Your task to perform on an android device: open a bookmark in the chrome app Image 0: 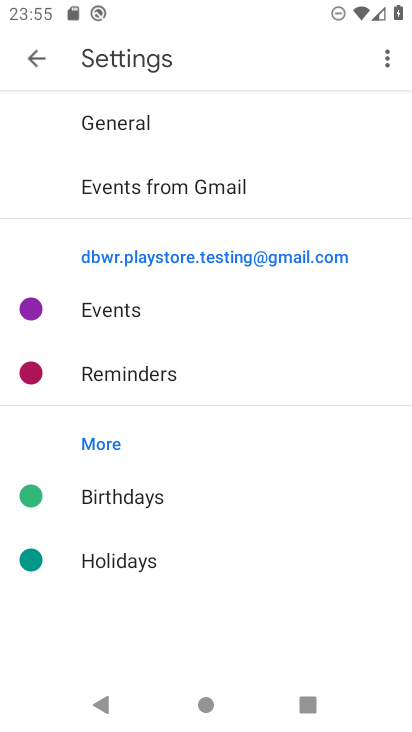
Step 0: press home button
Your task to perform on an android device: open a bookmark in the chrome app Image 1: 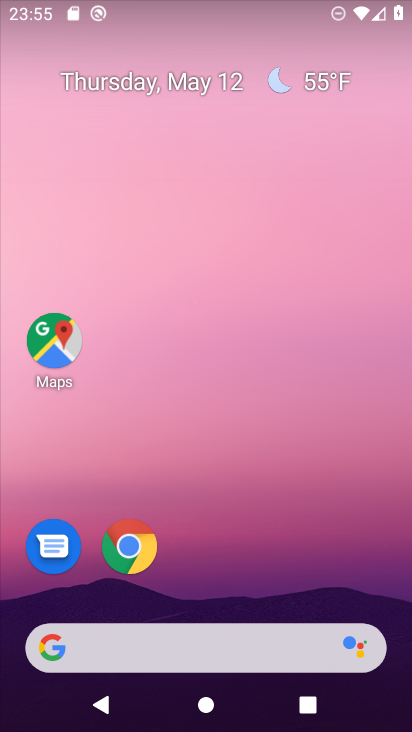
Step 1: click (128, 548)
Your task to perform on an android device: open a bookmark in the chrome app Image 2: 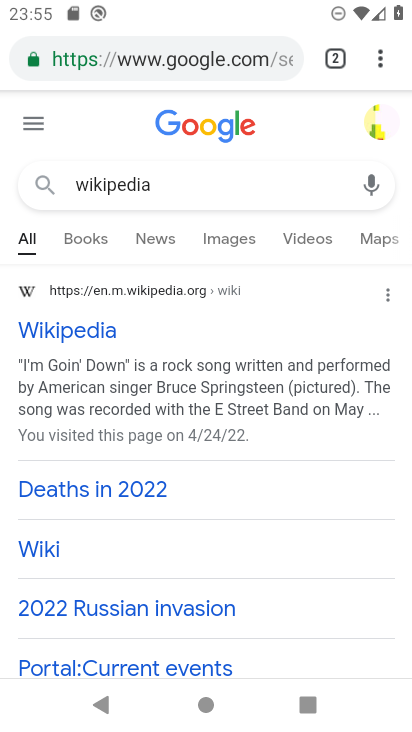
Step 2: click (118, 64)
Your task to perform on an android device: open a bookmark in the chrome app Image 3: 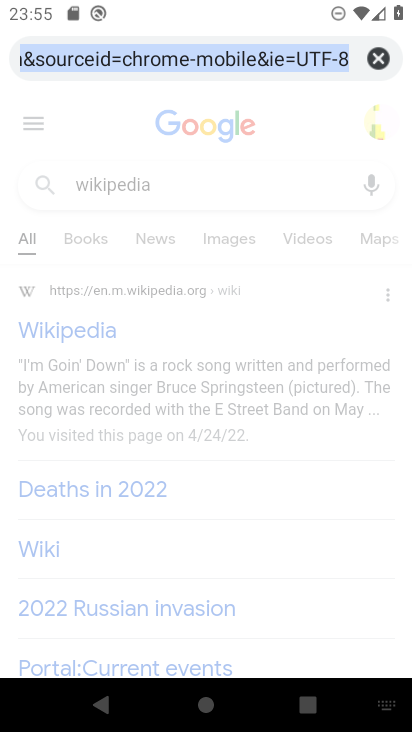
Step 3: click (378, 58)
Your task to perform on an android device: open a bookmark in the chrome app Image 4: 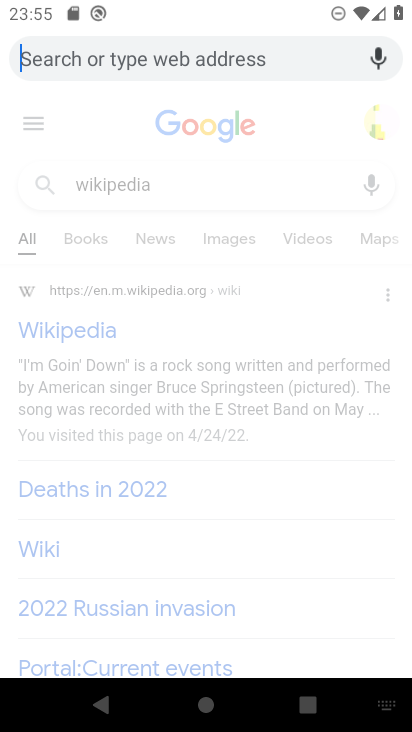
Step 4: click (103, 120)
Your task to perform on an android device: open a bookmark in the chrome app Image 5: 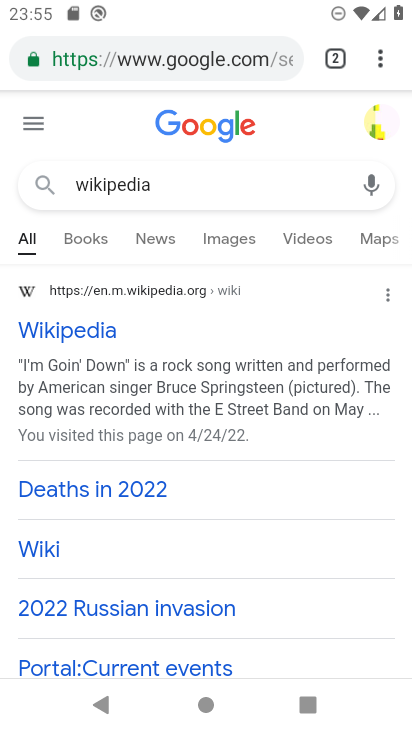
Step 5: click (381, 56)
Your task to perform on an android device: open a bookmark in the chrome app Image 6: 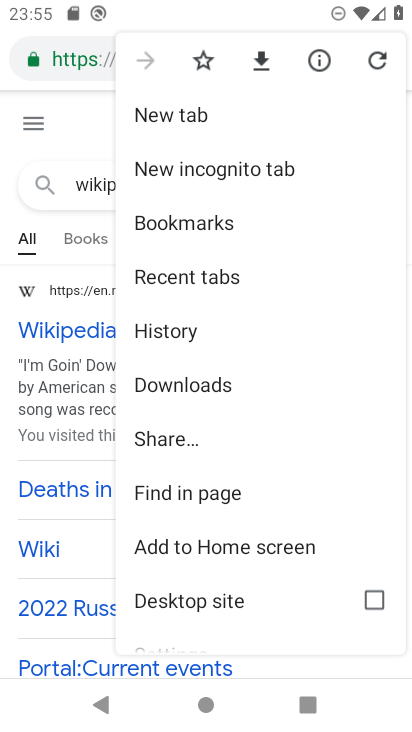
Step 6: click (203, 226)
Your task to perform on an android device: open a bookmark in the chrome app Image 7: 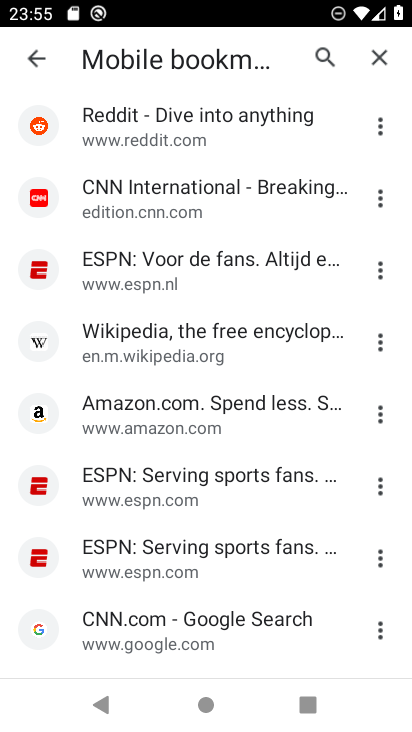
Step 7: task complete